Your task to perform on an android device: open wifi settings Image 0: 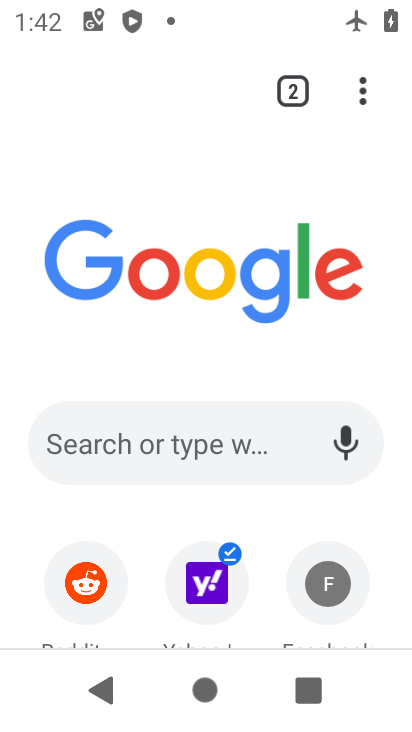
Step 0: press home button
Your task to perform on an android device: open wifi settings Image 1: 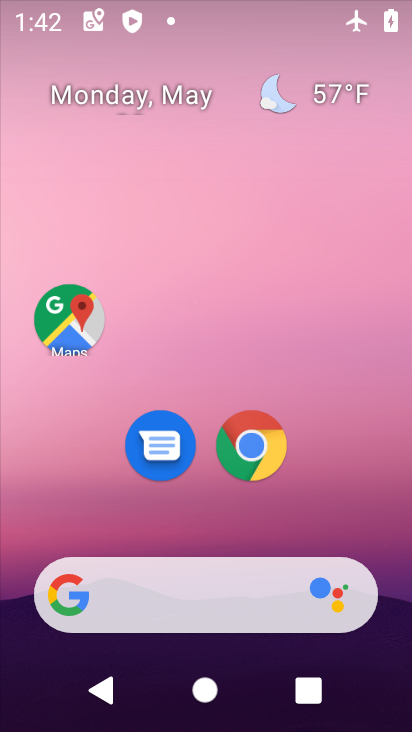
Step 1: drag from (212, 362) to (230, 62)
Your task to perform on an android device: open wifi settings Image 2: 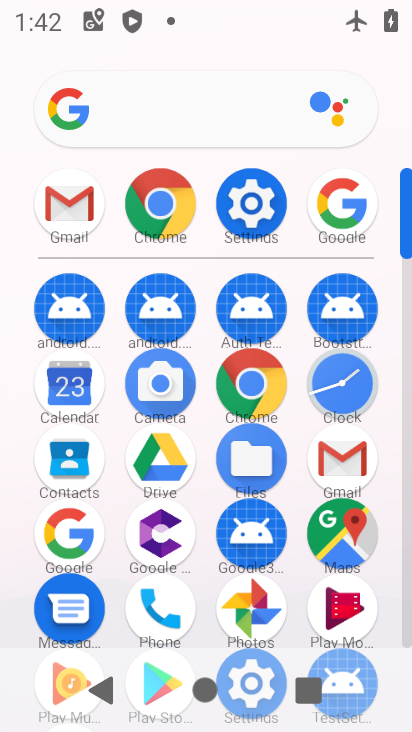
Step 2: click (246, 191)
Your task to perform on an android device: open wifi settings Image 3: 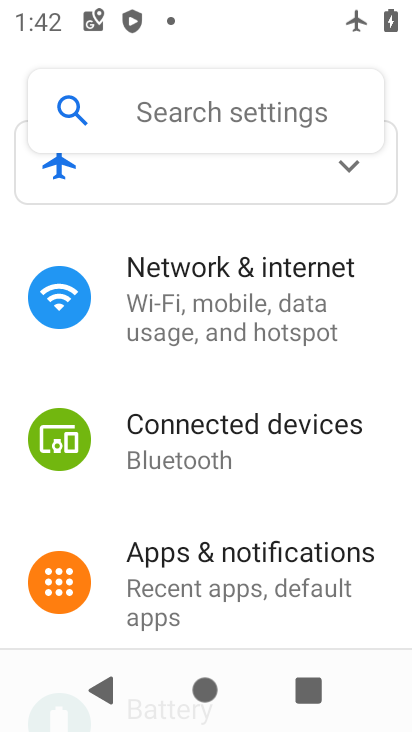
Step 3: click (167, 304)
Your task to perform on an android device: open wifi settings Image 4: 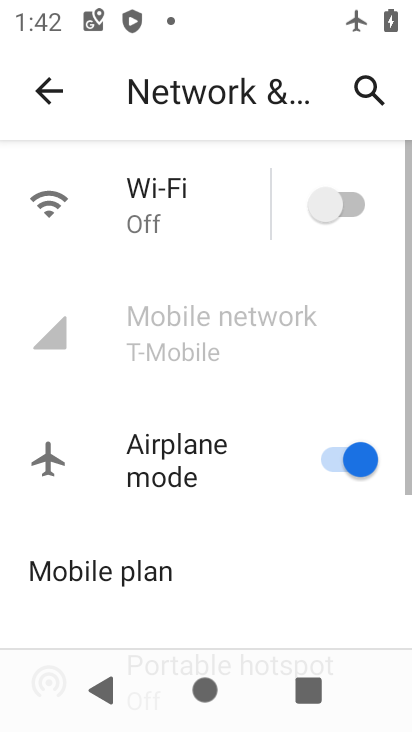
Step 4: click (190, 200)
Your task to perform on an android device: open wifi settings Image 5: 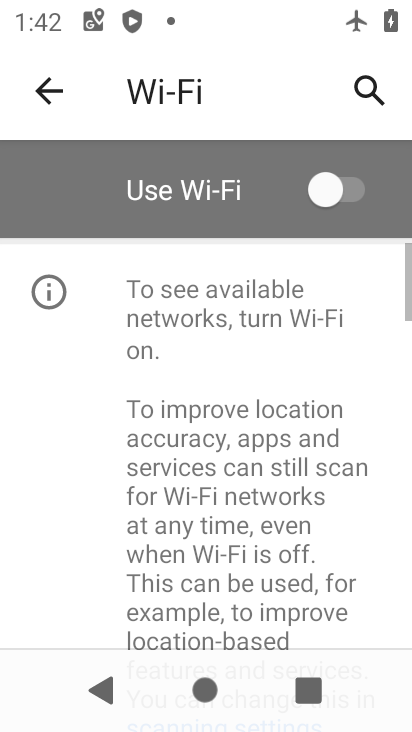
Step 5: click (320, 194)
Your task to perform on an android device: open wifi settings Image 6: 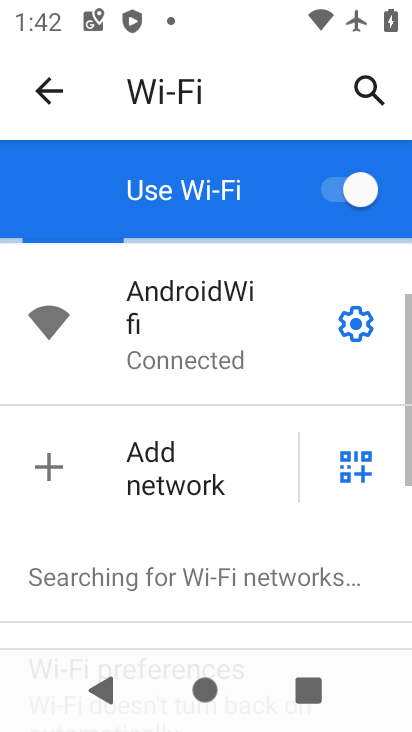
Step 6: click (362, 328)
Your task to perform on an android device: open wifi settings Image 7: 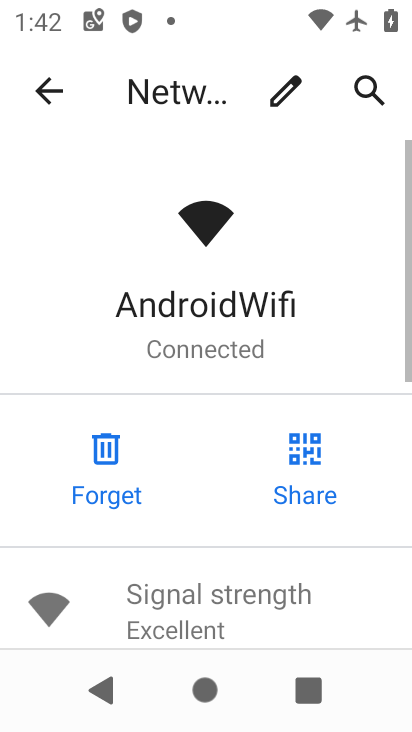
Step 7: task complete